Your task to perform on an android device: see tabs open on other devices in the chrome app Image 0: 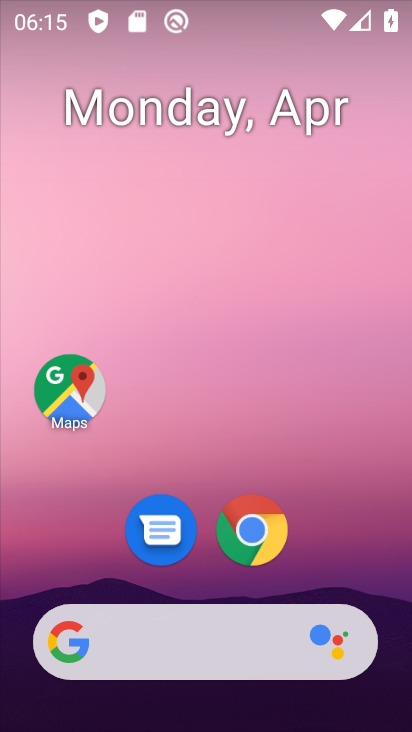
Step 0: drag from (199, 582) to (228, 110)
Your task to perform on an android device: see tabs open on other devices in the chrome app Image 1: 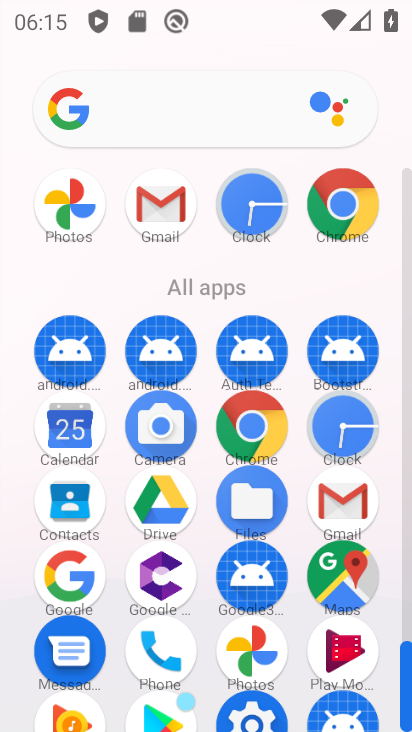
Step 1: click (250, 421)
Your task to perform on an android device: see tabs open on other devices in the chrome app Image 2: 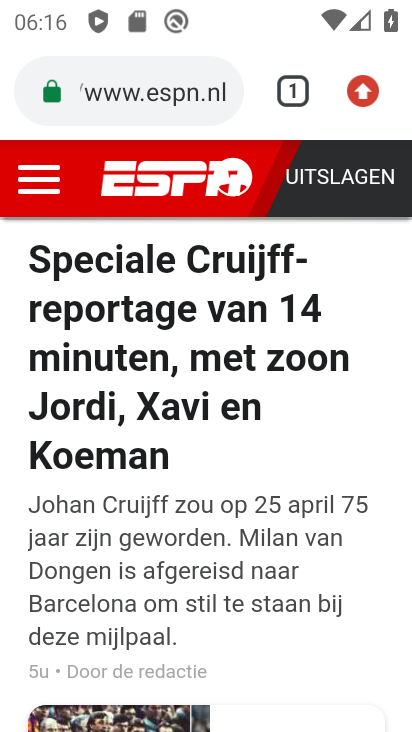
Step 2: click (366, 88)
Your task to perform on an android device: see tabs open on other devices in the chrome app Image 3: 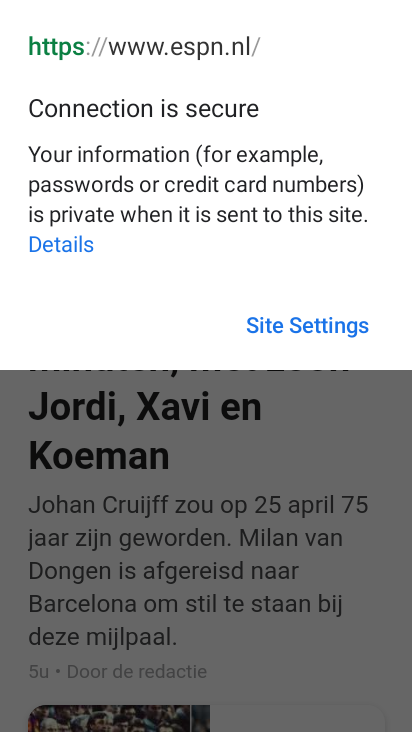
Step 3: click (301, 411)
Your task to perform on an android device: see tabs open on other devices in the chrome app Image 4: 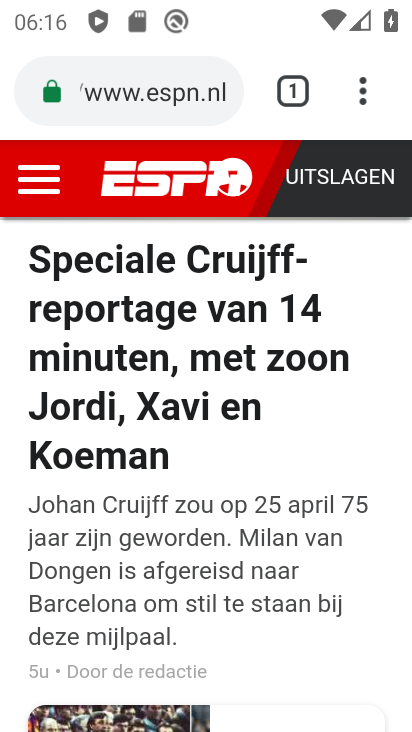
Step 4: click (362, 85)
Your task to perform on an android device: see tabs open on other devices in the chrome app Image 5: 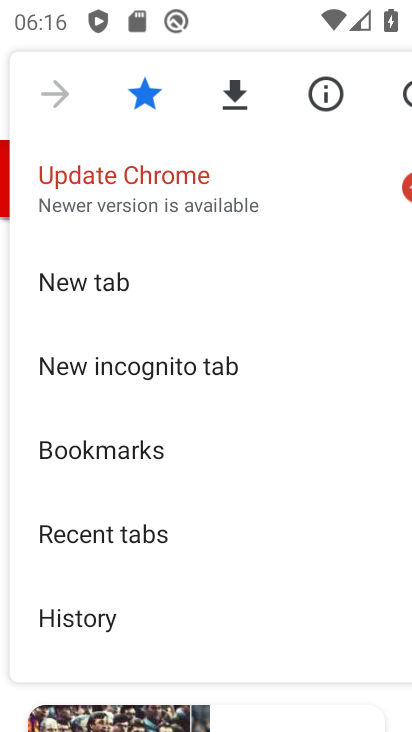
Step 5: drag from (196, 620) to (270, 189)
Your task to perform on an android device: see tabs open on other devices in the chrome app Image 6: 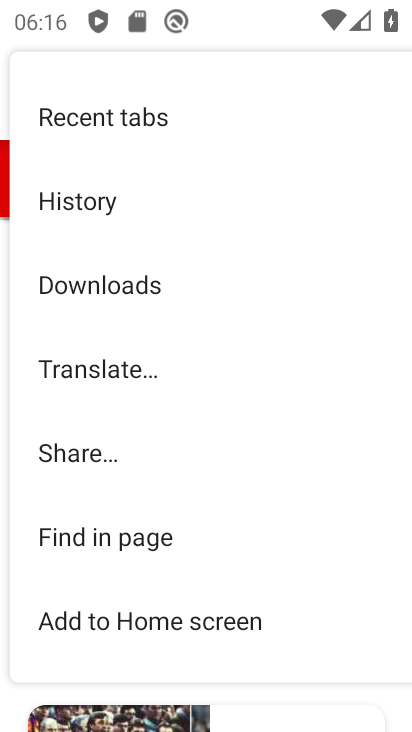
Step 6: click (180, 114)
Your task to perform on an android device: see tabs open on other devices in the chrome app Image 7: 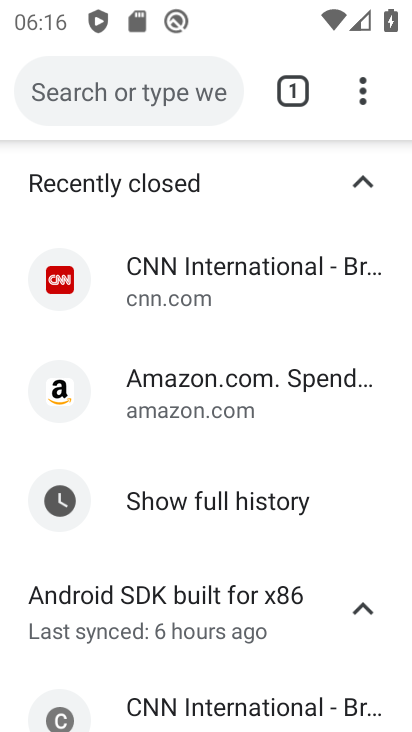
Step 7: task complete